Your task to perform on an android device: See recent photos Image 0: 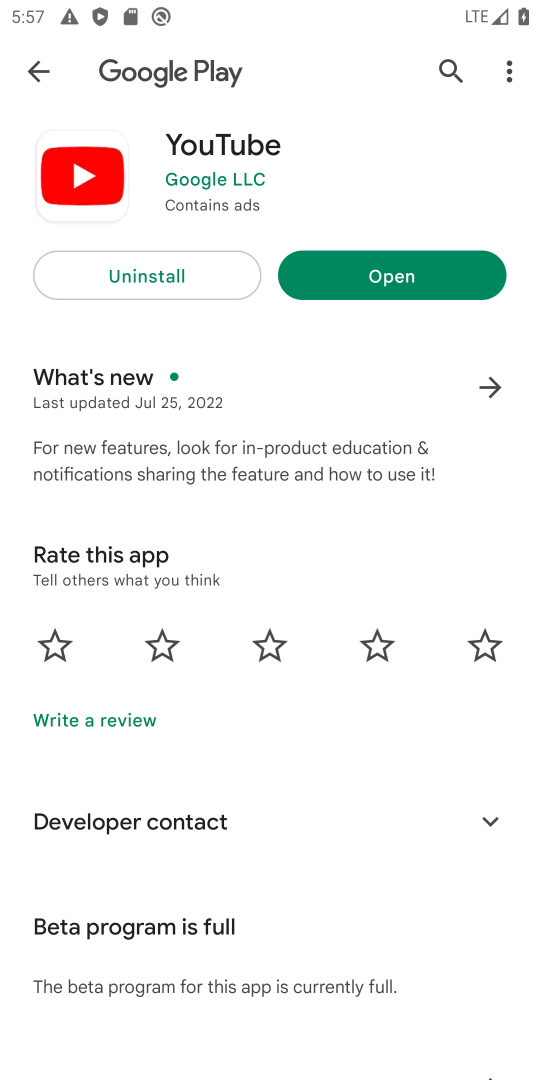
Step 0: press home button
Your task to perform on an android device: See recent photos Image 1: 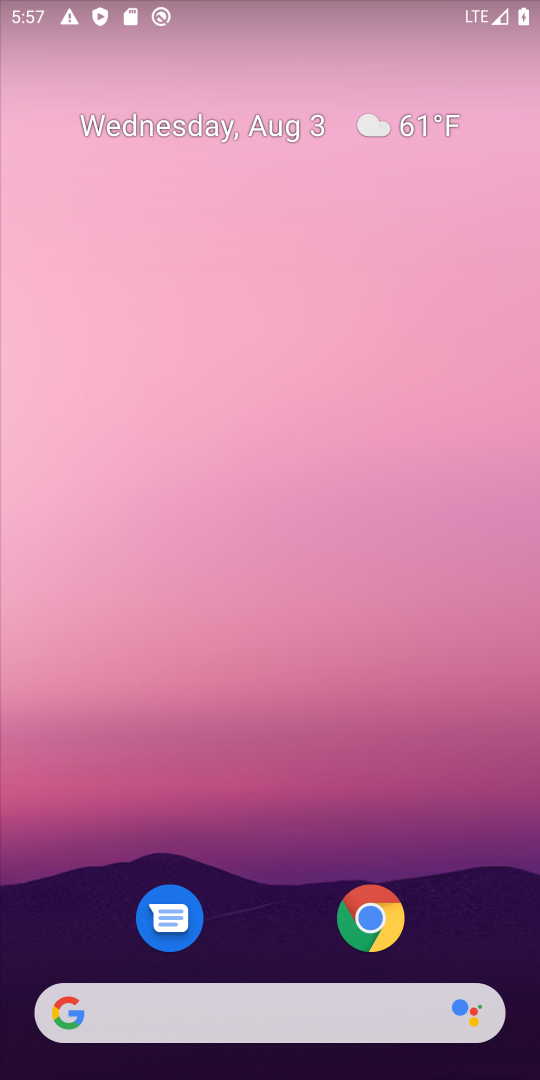
Step 1: drag from (213, 1016) to (186, 227)
Your task to perform on an android device: See recent photos Image 2: 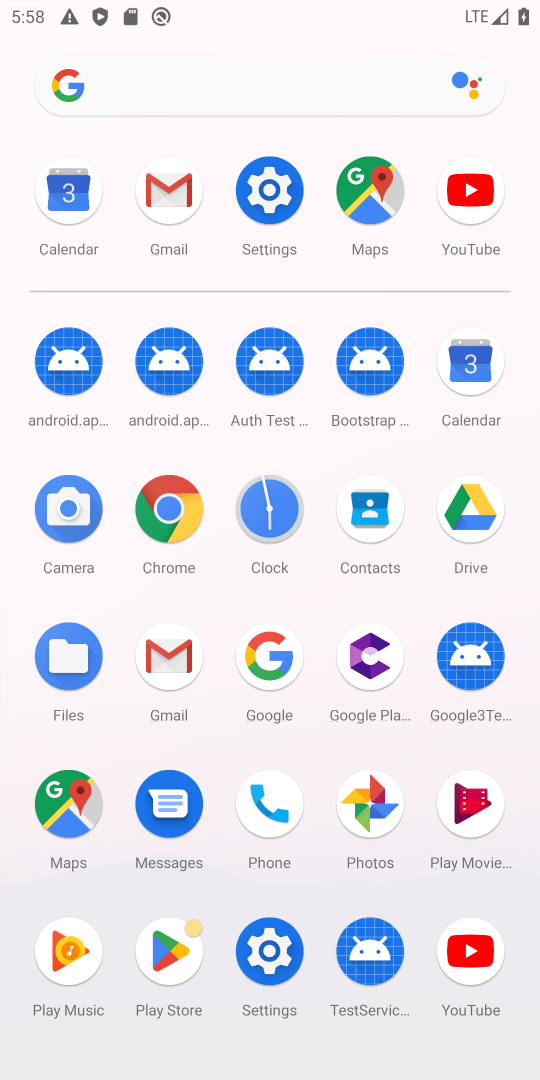
Step 2: click (361, 804)
Your task to perform on an android device: See recent photos Image 3: 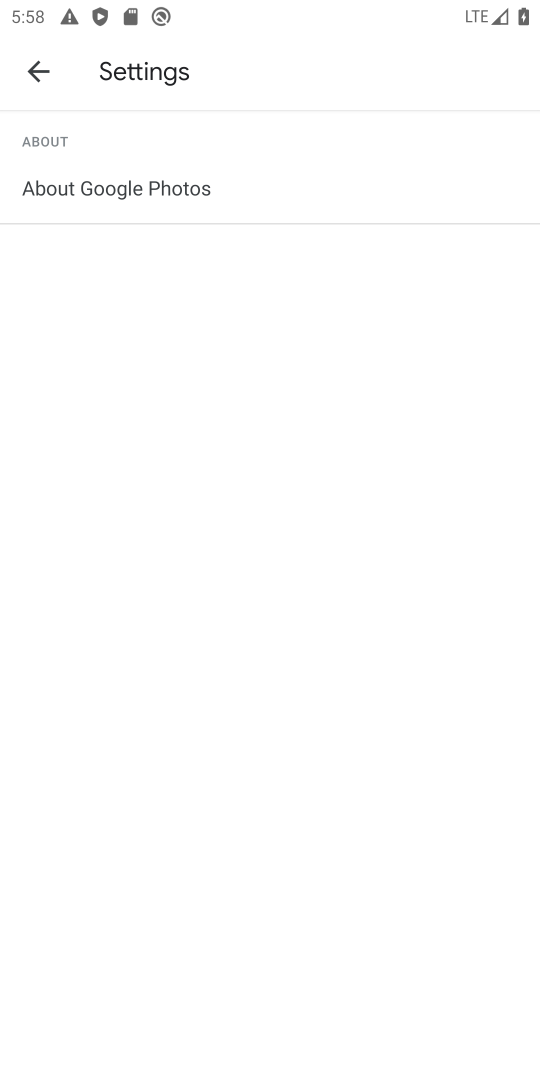
Step 3: task complete